Your task to perform on an android device: Show me recent news Image 0: 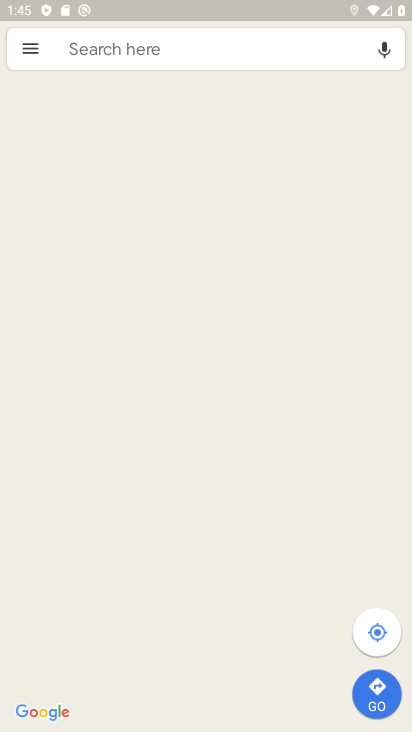
Step 0: press back button
Your task to perform on an android device: Show me recent news Image 1: 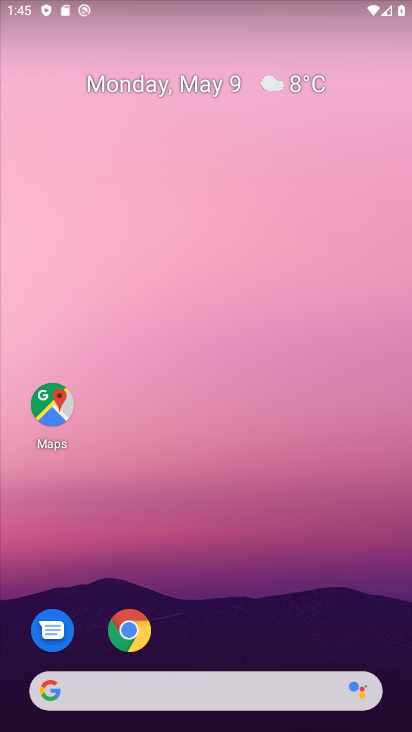
Step 1: drag from (170, 616) to (172, 730)
Your task to perform on an android device: Show me recent news Image 2: 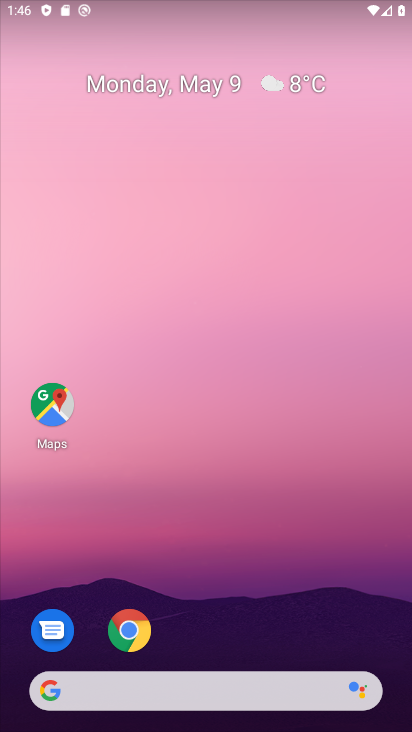
Step 2: click (168, 691)
Your task to perform on an android device: Show me recent news Image 3: 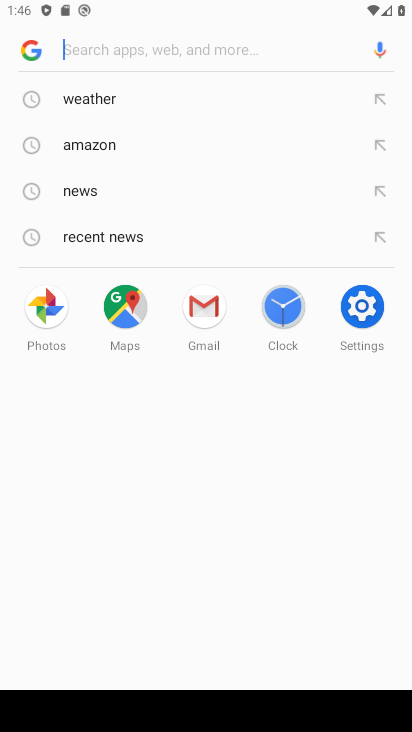
Step 3: click (120, 233)
Your task to perform on an android device: Show me recent news Image 4: 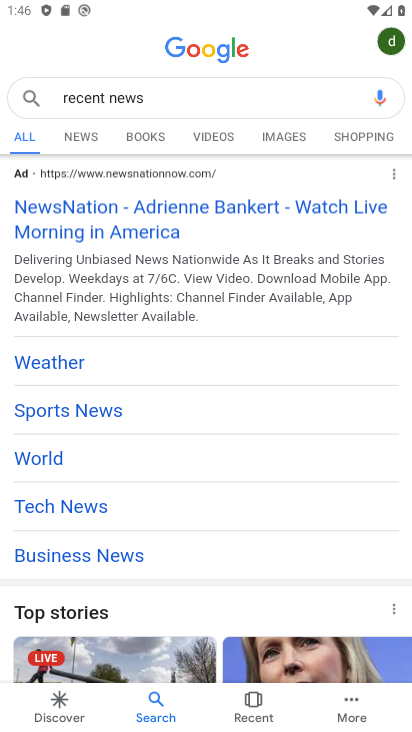
Step 4: task complete